Your task to perform on an android device: add a label to a message in the gmail app Image 0: 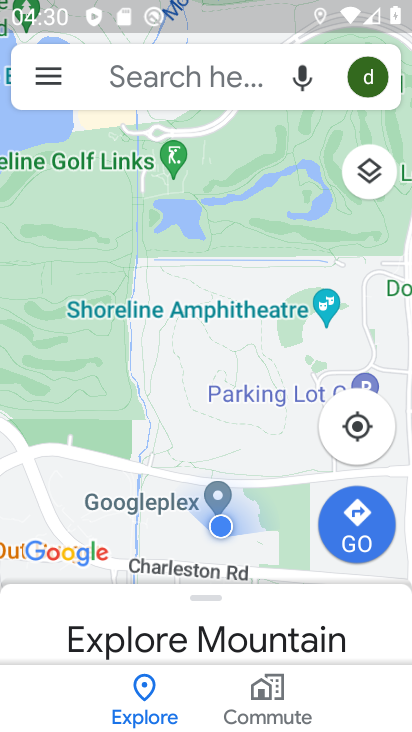
Step 0: press home button
Your task to perform on an android device: add a label to a message in the gmail app Image 1: 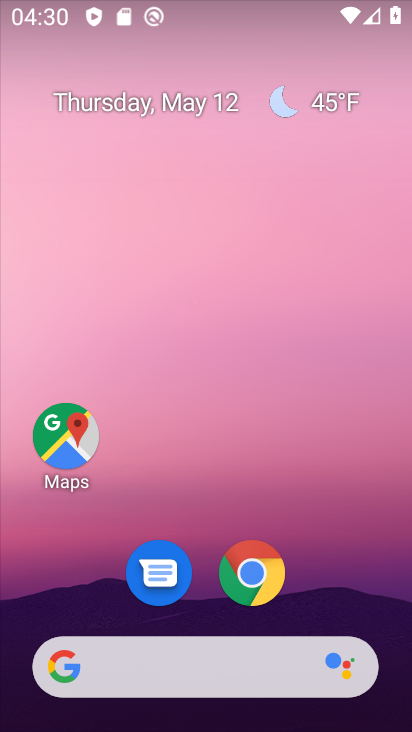
Step 1: drag from (404, 627) to (329, 78)
Your task to perform on an android device: add a label to a message in the gmail app Image 2: 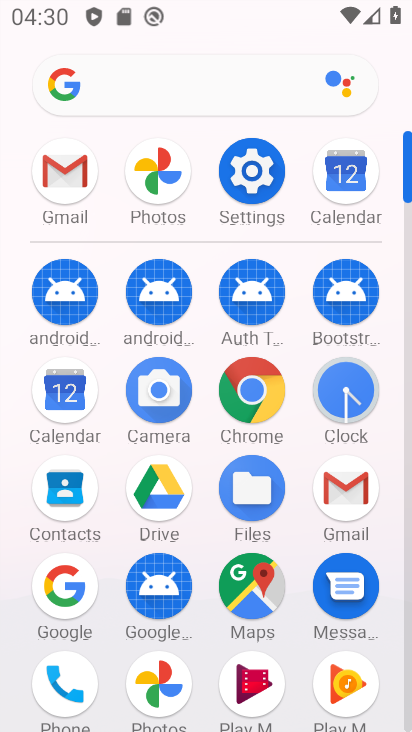
Step 2: click (340, 485)
Your task to perform on an android device: add a label to a message in the gmail app Image 3: 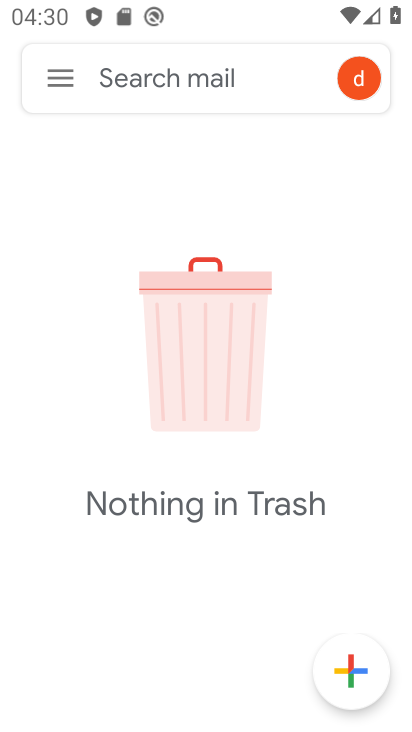
Step 3: click (52, 74)
Your task to perform on an android device: add a label to a message in the gmail app Image 4: 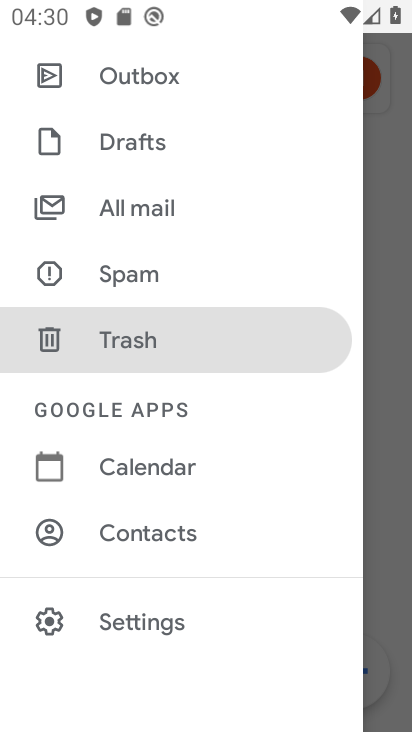
Step 4: click (136, 212)
Your task to perform on an android device: add a label to a message in the gmail app Image 5: 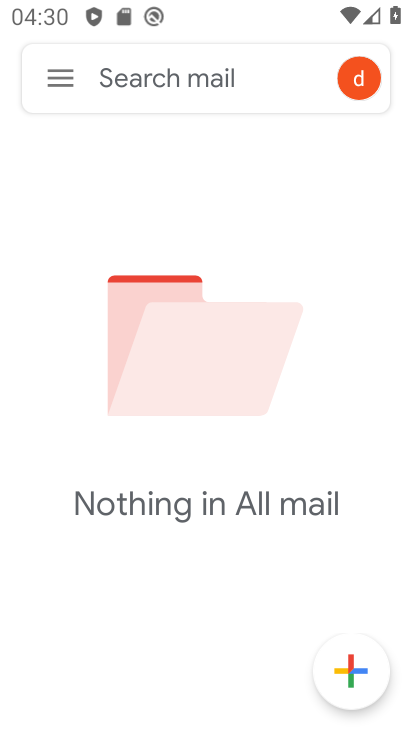
Step 5: task complete